Your task to perform on an android device: Search for Mexican restaurants on Maps Image 0: 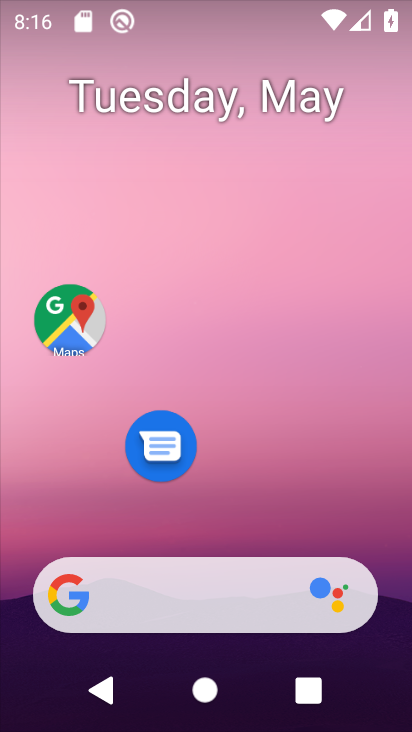
Step 0: drag from (206, 531) to (370, 8)
Your task to perform on an android device: Search for Mexican restaurants on Maps Image 1: 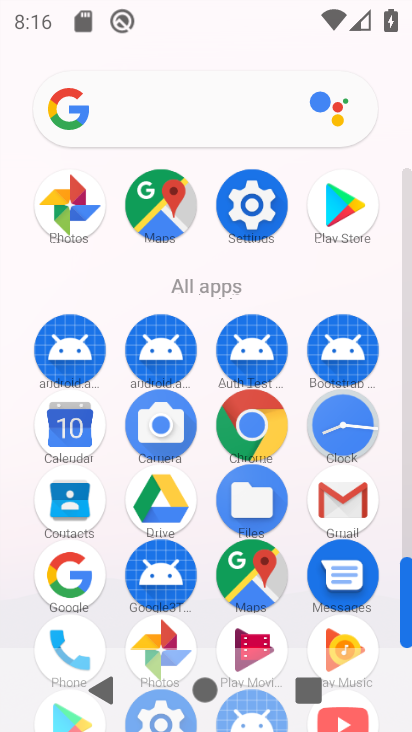
Step 1: click (257, 578)
Your task to perform on an android device: Search for Mexican restaurants on Maps Image 2: 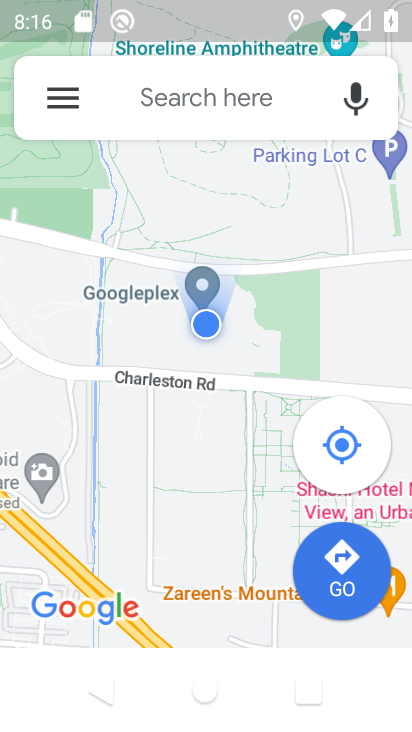
Step 2: click (214, 100)
Your task to perform on an android device: Search for Mexican restaurants on Maps Image 3: 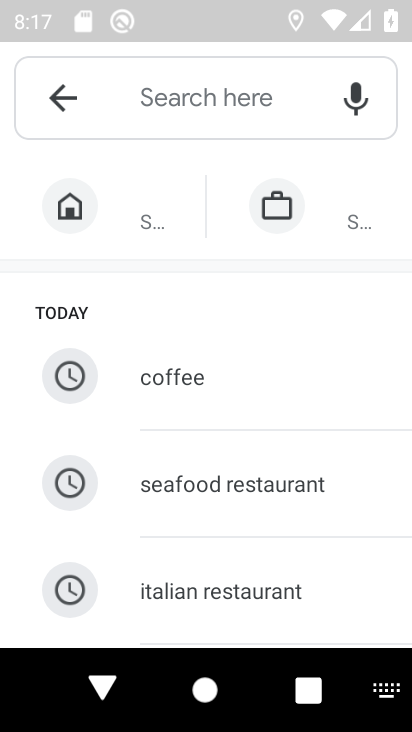
Step 3: type "mexican"
Your task to perform on an android device: Search for Mexican restaurants on Maps Image 4: 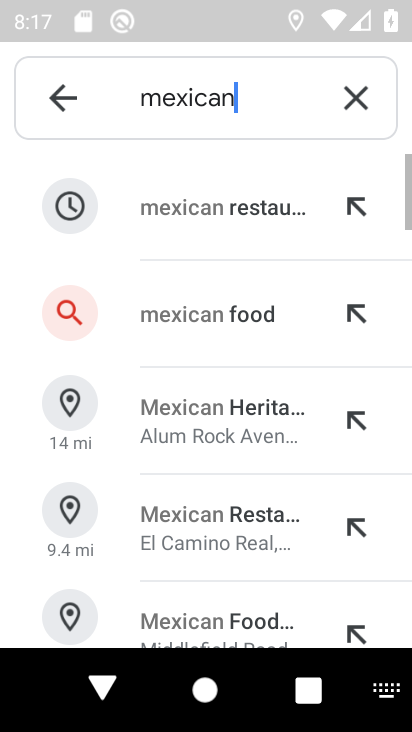
Step 4: click (233, 209)
Your task to perform on an android device: Search for Mexican restaurants on Maps Image 5: 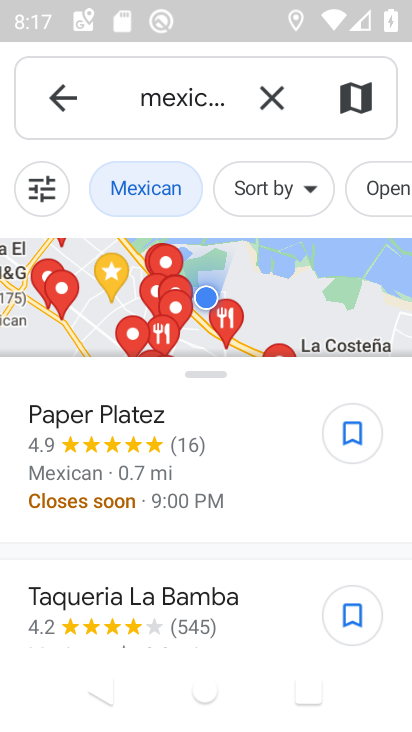
Step 5: task complete